Your task to perform on an android device: open app "HBO Max: Stream TV & Movies" Image 0: 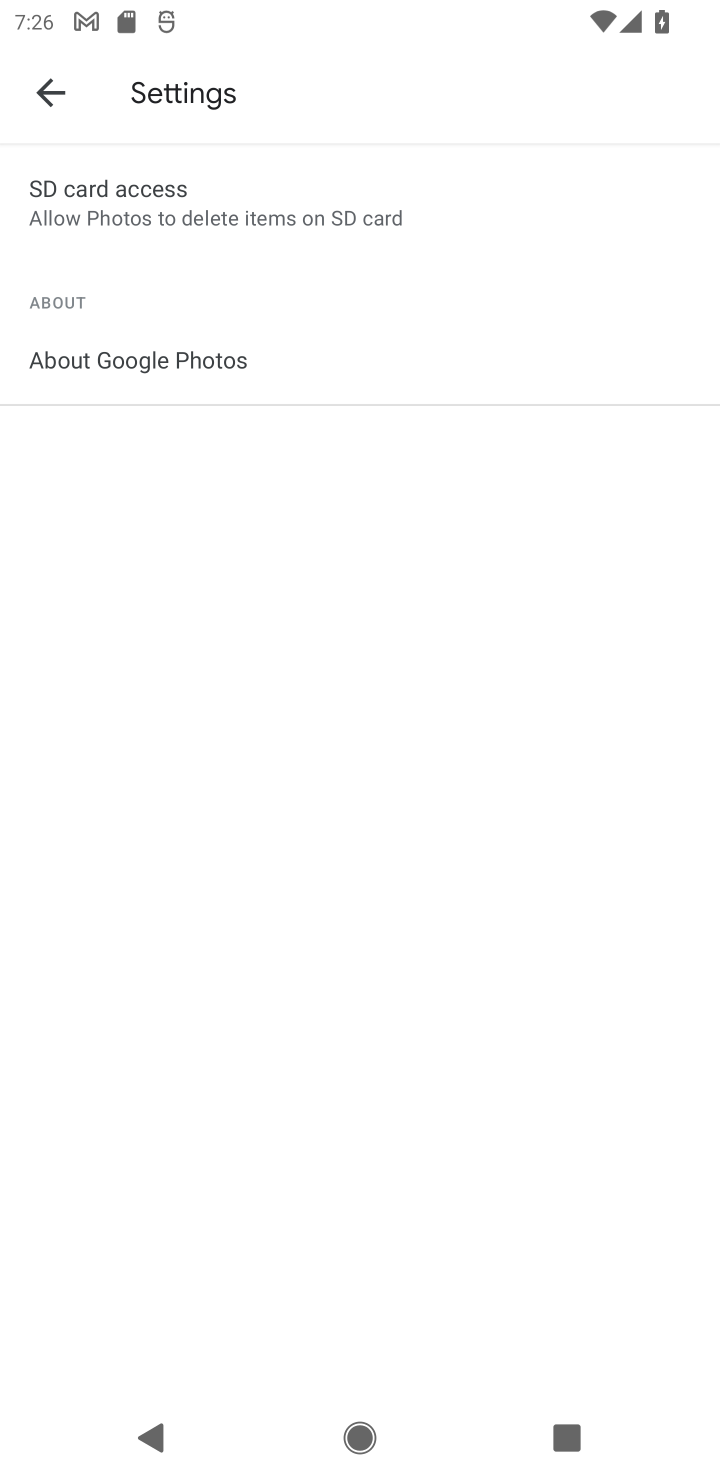
Step 0: press home button
Your task to perform on an android device: open app "HBO Max: Stream TV & Movies" Image 1: 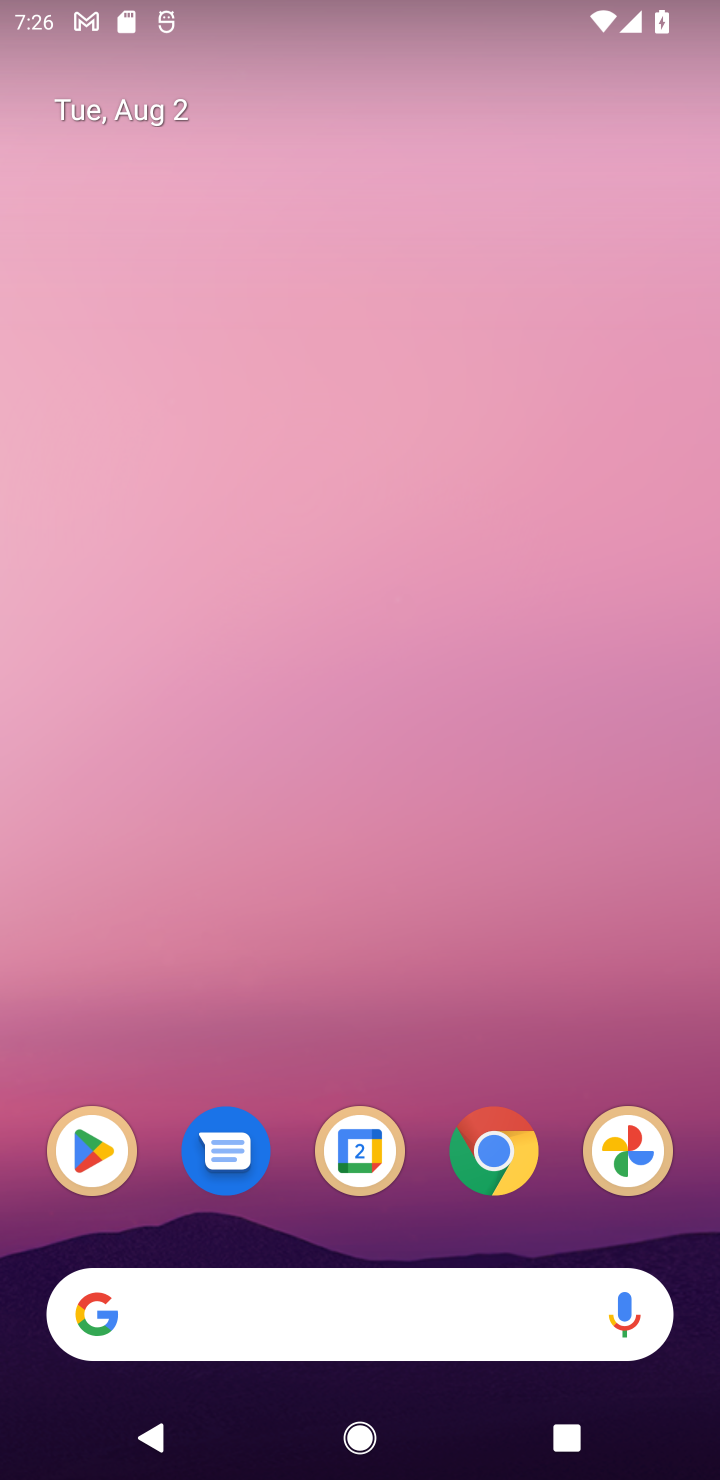
Step 1: click (109, 1139)
Your task to perform on an android device: open app "HBO Max: Stream TV & Movies" Image 2: 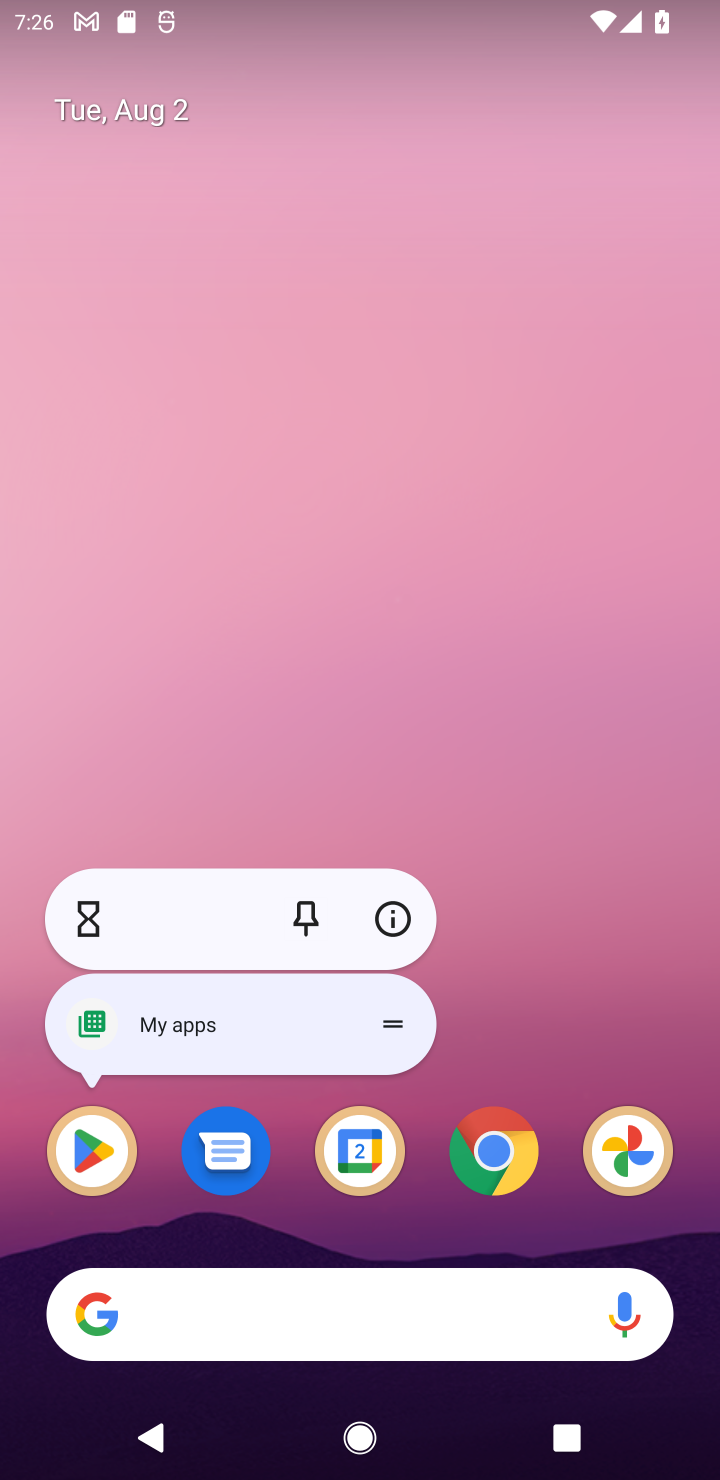
Step 2: click (109, 1138)
Your task to perform on an android device: open app "HBO Max: Stream TV & Movies" Image 3: 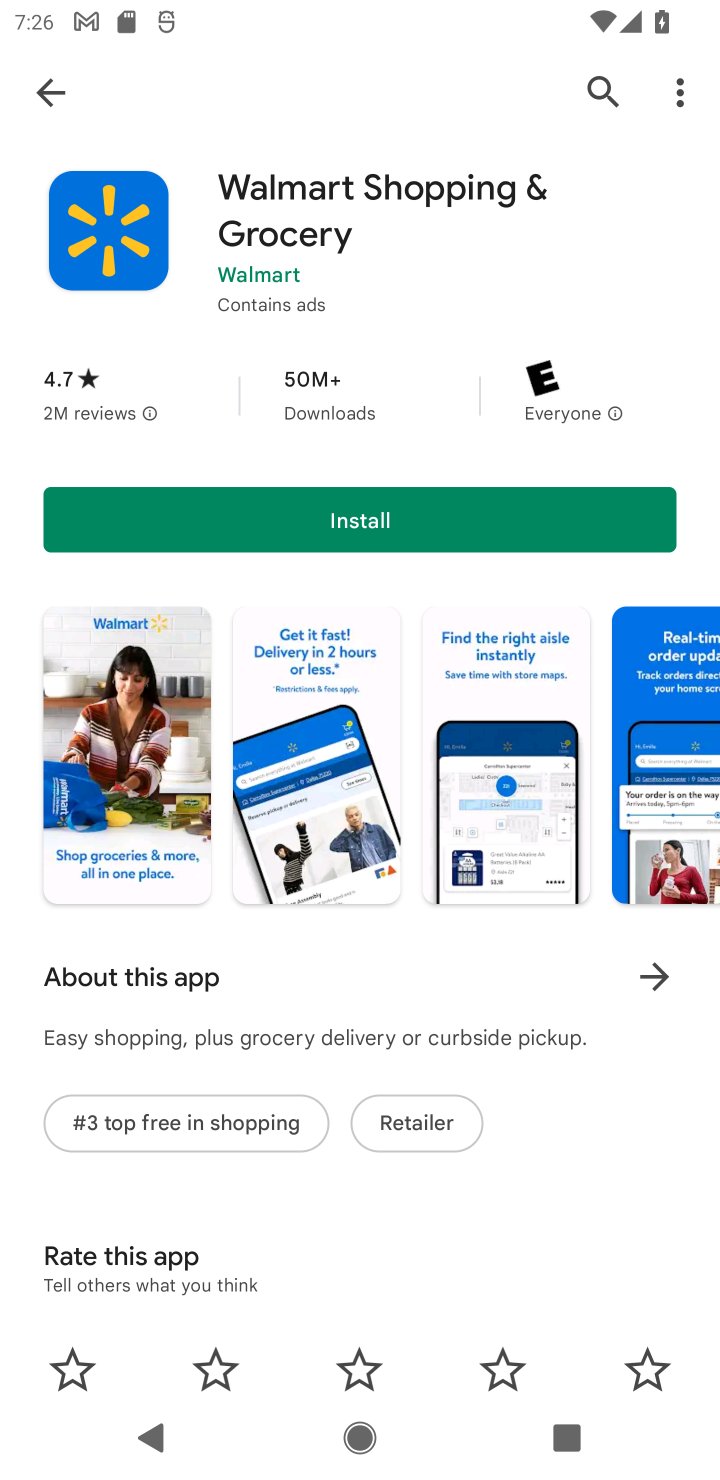
Step 3: click (78, 117)
Your task to perform on an android device: open app "HBO Max: Stream TV & Movies" Image 4: 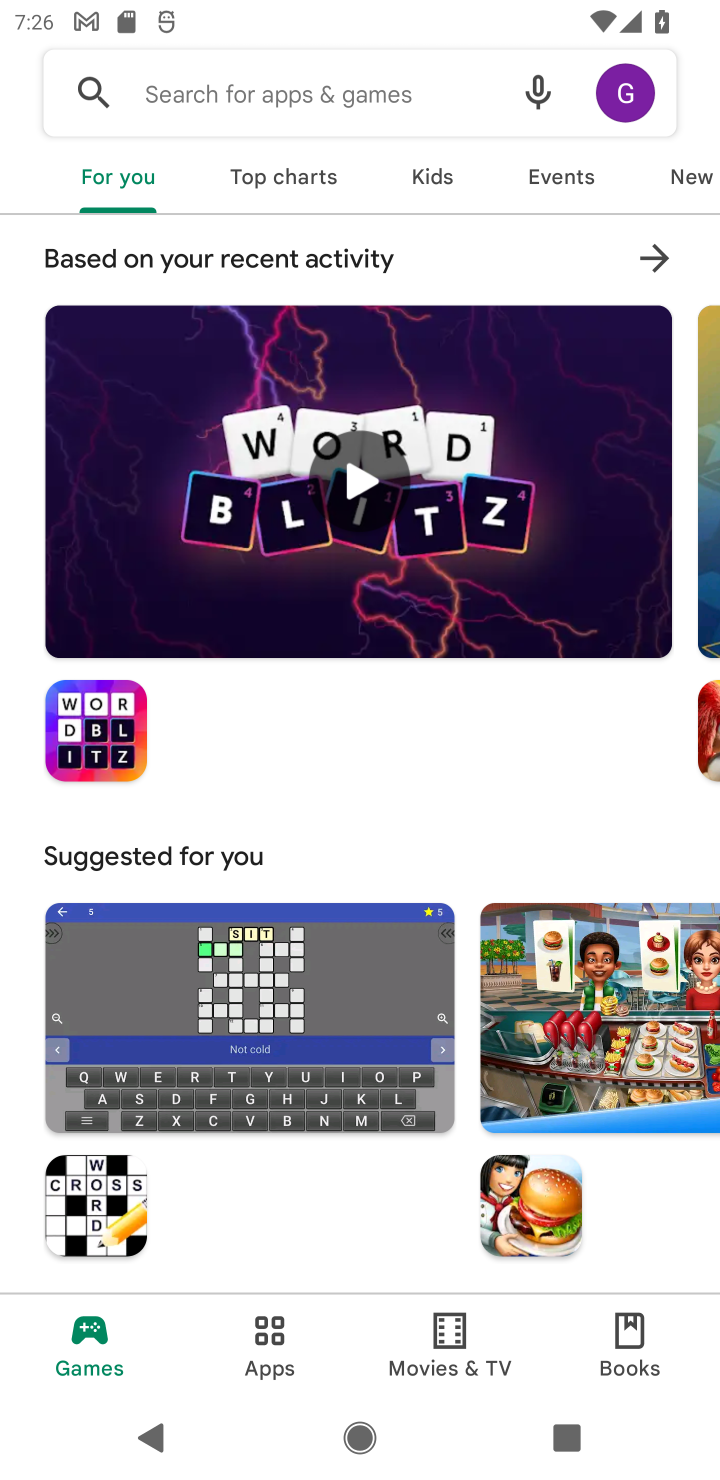
Step 4: click (158, 115)
Your task to perform on an android device: open app "HBO Max: Stream TV & Movies" Image 5: 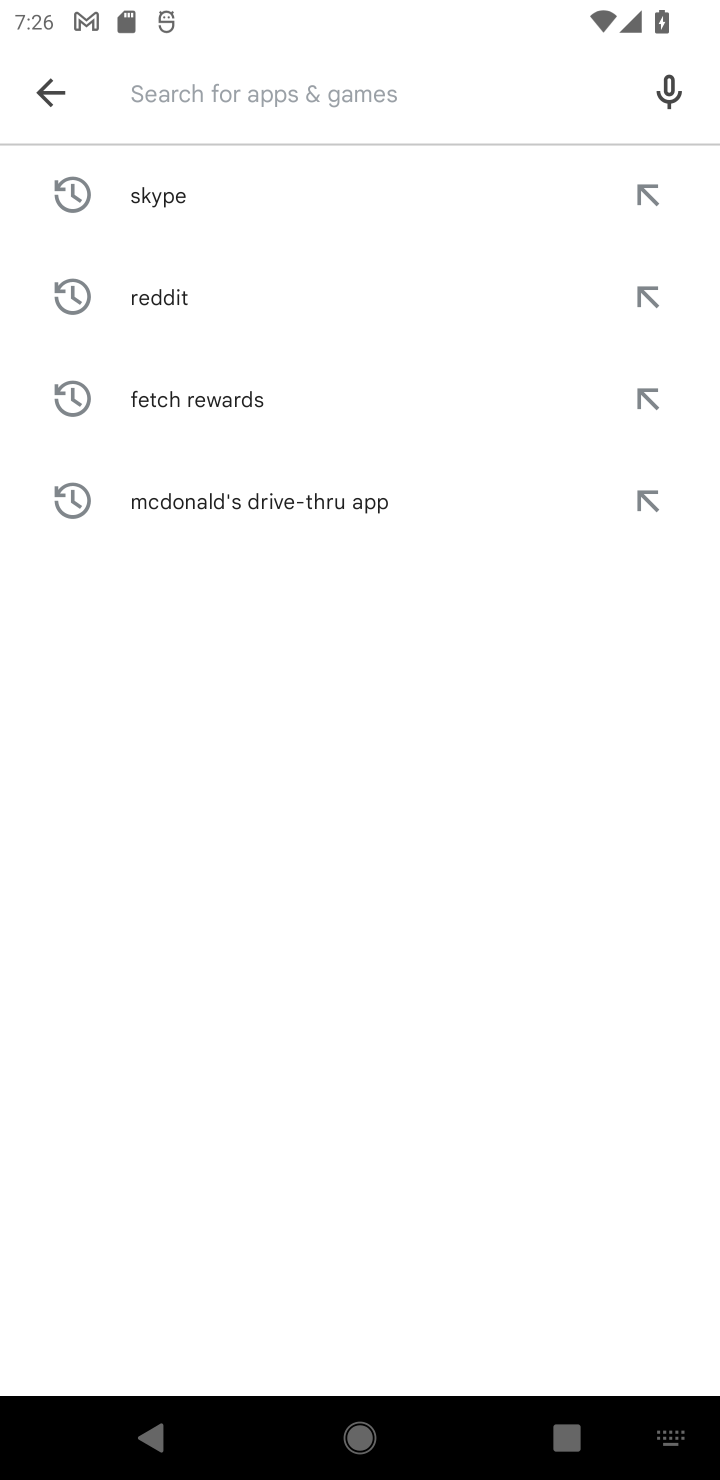
Step 5: type "HBO Max: Stream TV & Movies"
Your task to perform on an android device: open app "HBO Max: Stream TV & Movies" Image 6: 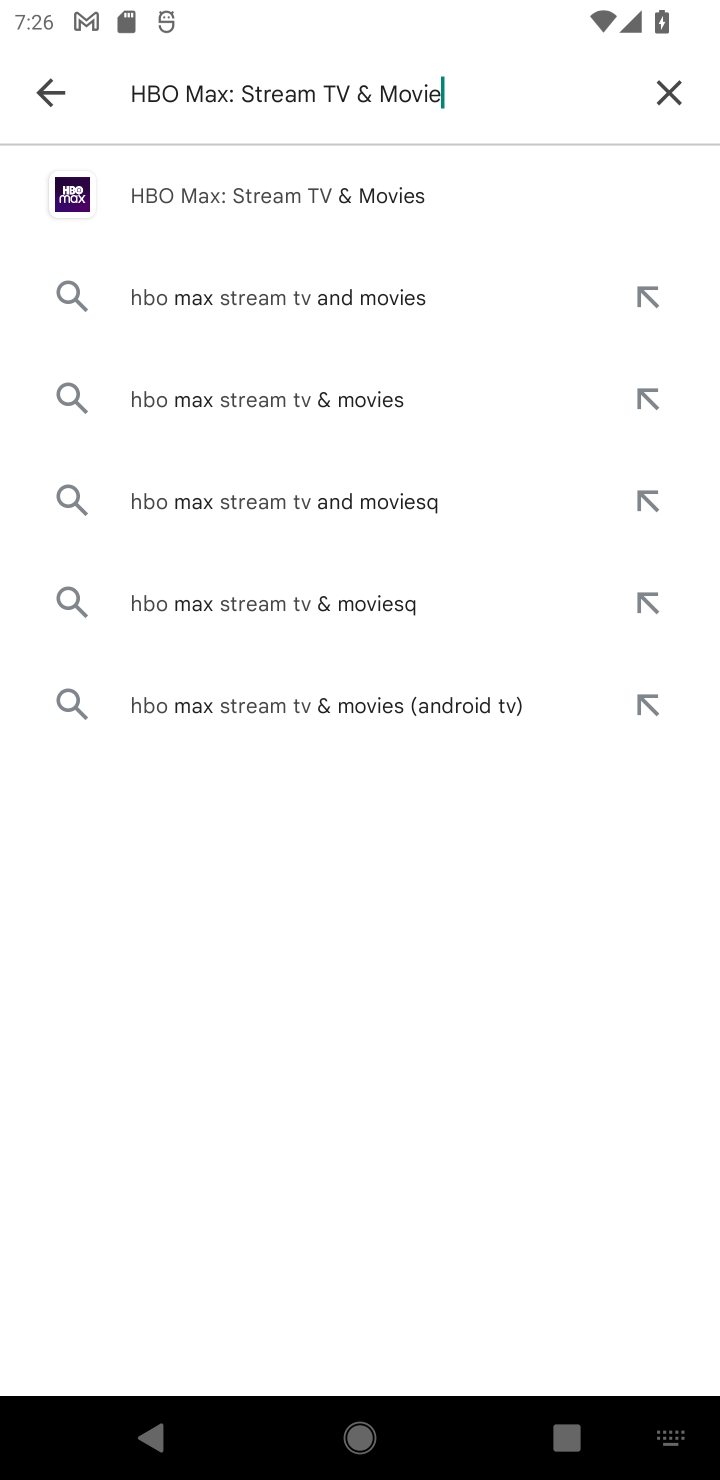
Step 6: type ""
Your task to perform on an android device: open app "HBO Max: Stream TV & Movies" Image 7: 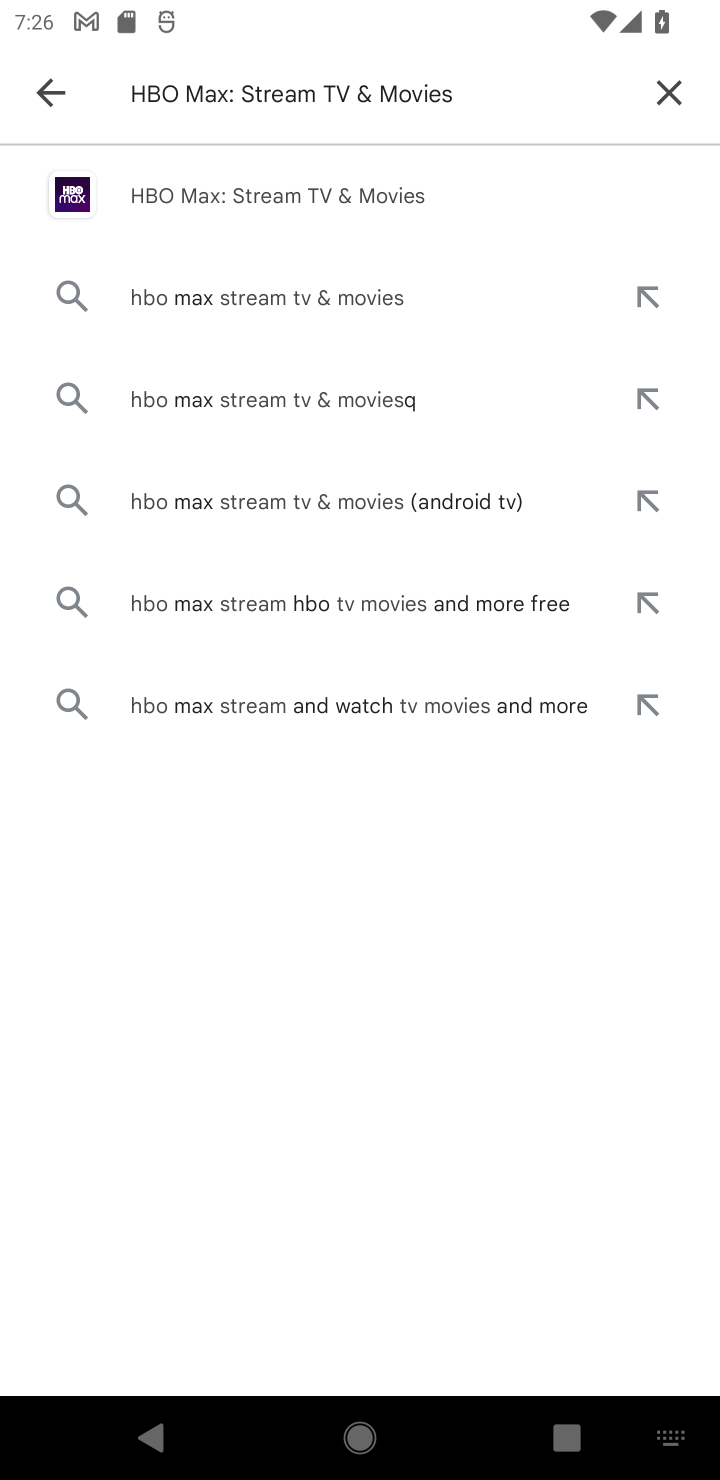
Step 7: click (147, 242)
Your task to perform on an android device: open app "HBO Max: Stream TV & Movies" Image 8: 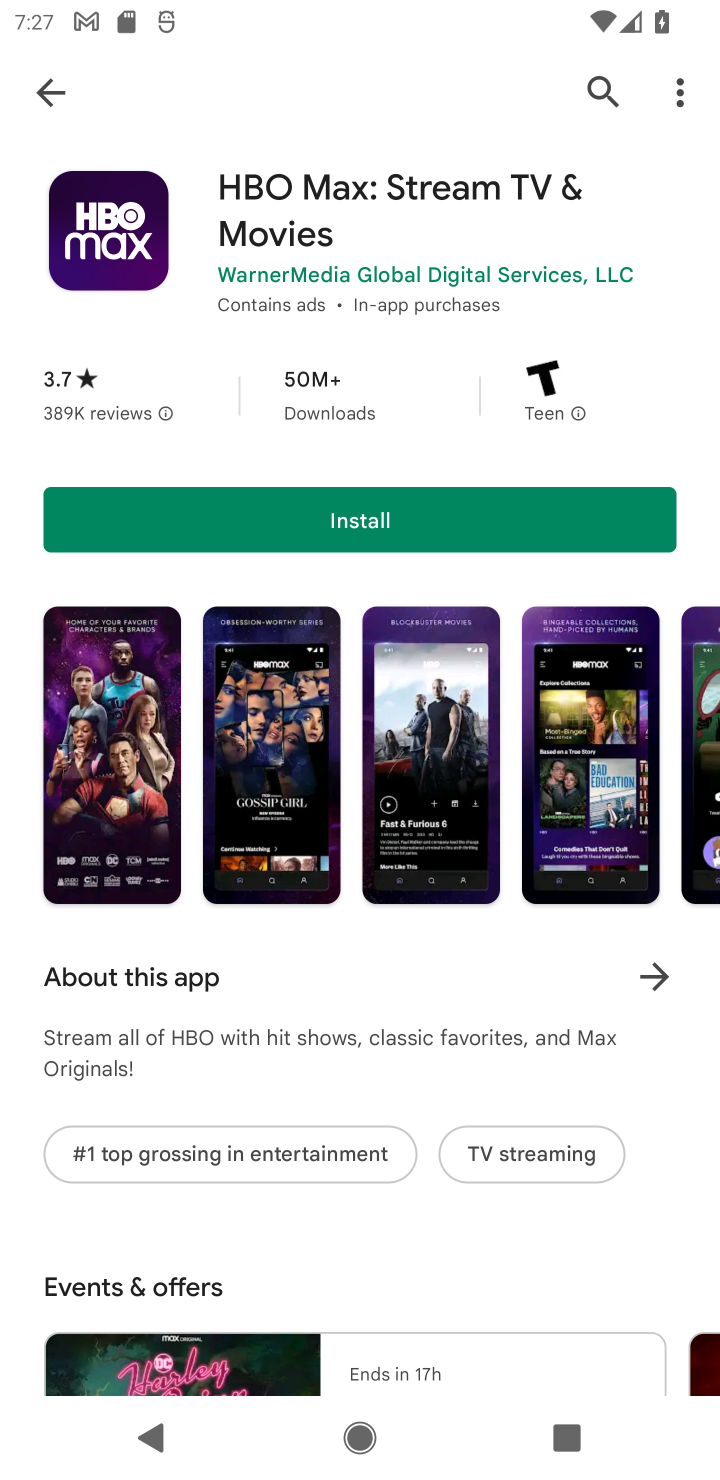
Step 8: task complete